Your task to perform on an android device: change your default location settings in chrome Image 0: 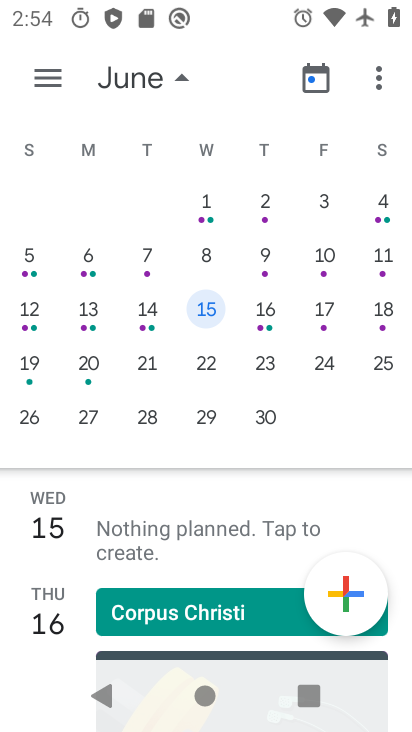
Step 0: press home button
Your task to perform on an android device: change your default location settings in chrome Image 1: 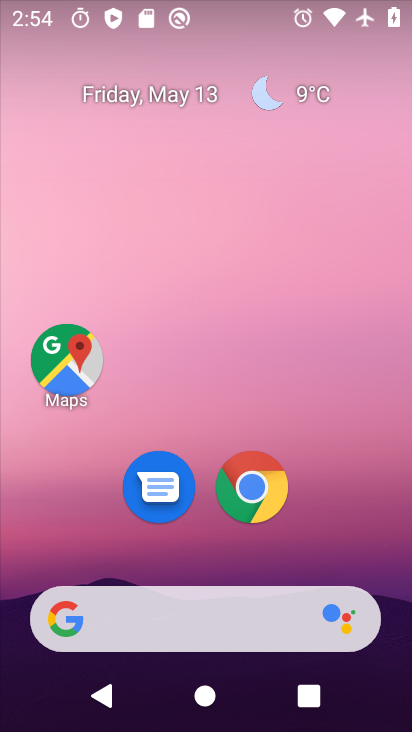
Step 1: click (258, 482)
Your task to perform on an android device: change your default location settings in chrome Image 2: 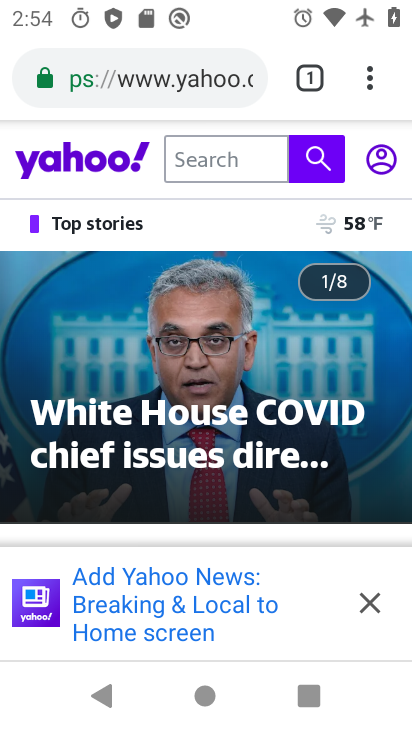
Step 2: click (358, 82)
Your task to perform on an android device: change your default location settings in chrome Image 3: 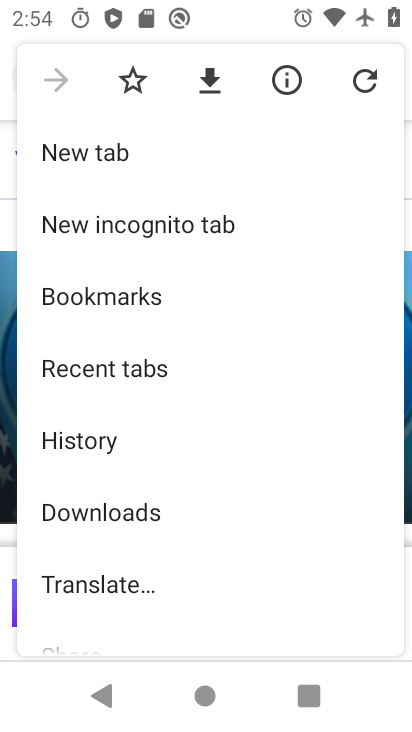
Step 3: drag from (238, 578) to (213, 150)
Your task to perform on an android device: change your default location settings in chrome Image 4: 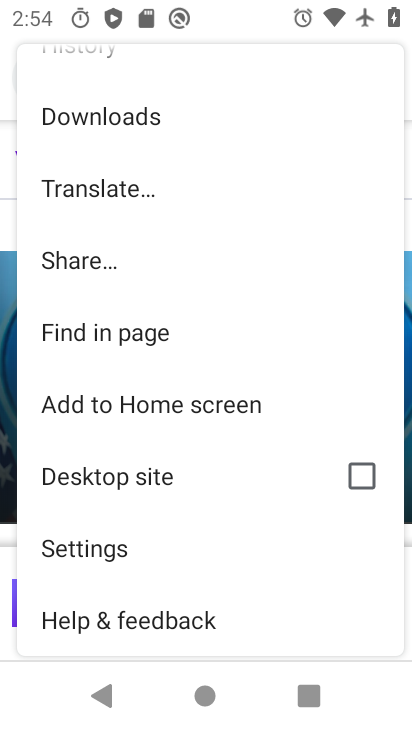
Step 4: click (92, 549)
Your task to perform on an android device: change your default location settings in chrome Image 5: 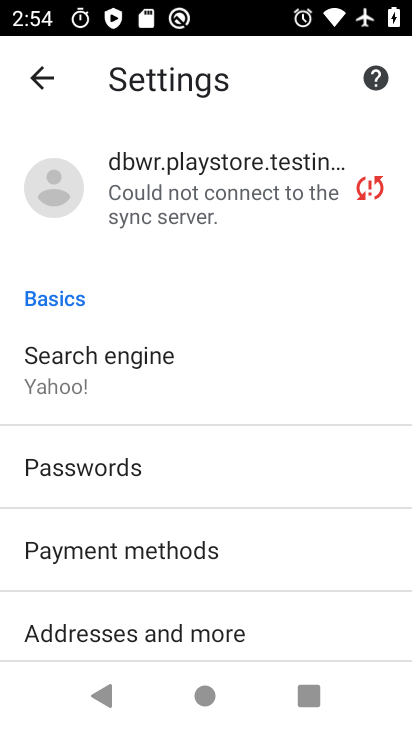
Step 5: click (126, 367)
Your task to perform on an android device: change your default location settings in chrome Image 6: 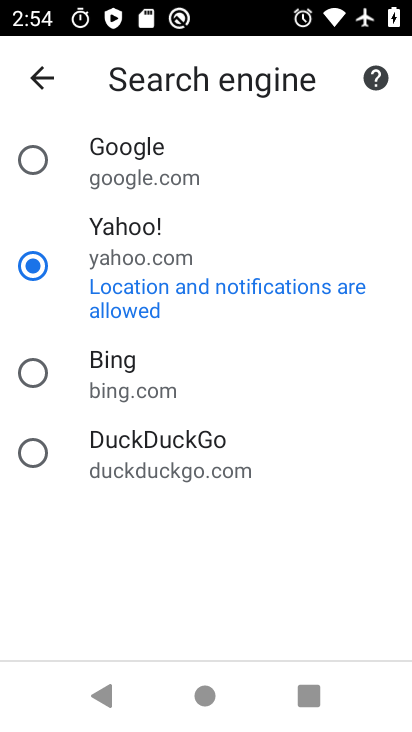
Step 6: click (37, 159)
Your task to perform on an android device: change your default location settings in chrome Image 7: 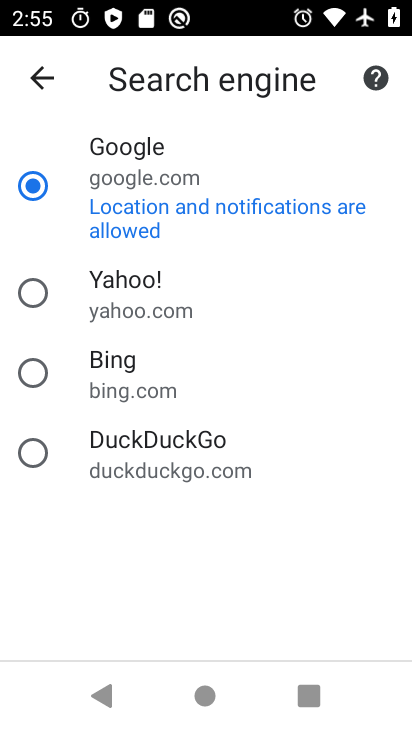
Step 7: task complete